Your task to perform on an android device: Open sound settings Image 0: 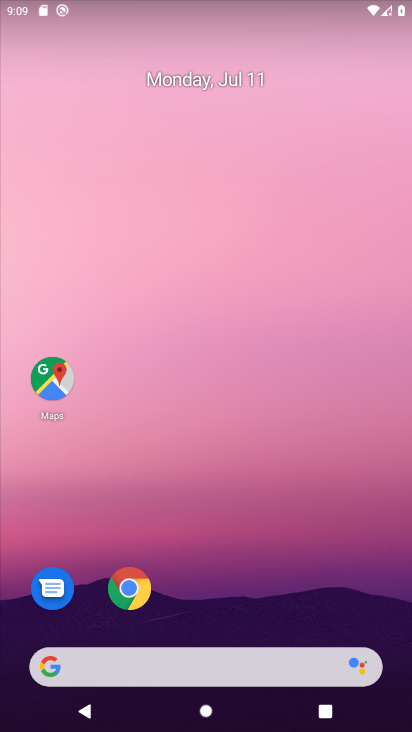
Step 0: drag from (238, 630) to (232, 282)
Your task to perform on an android device: Open sound settings Image 1: 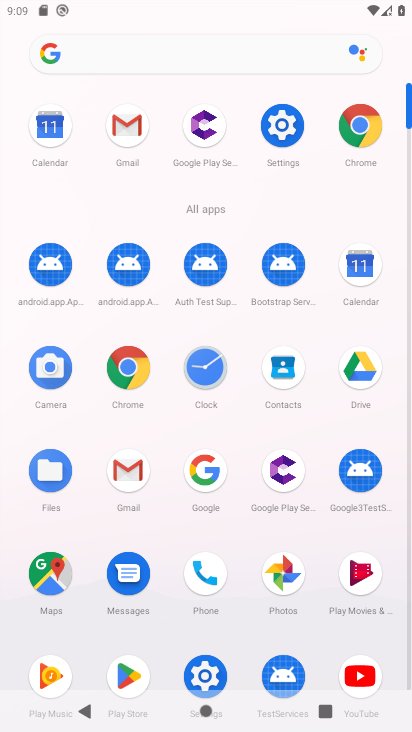
Step 1: click (293, 126)
Your task to perform on an android device: Open sound settings Image 2: 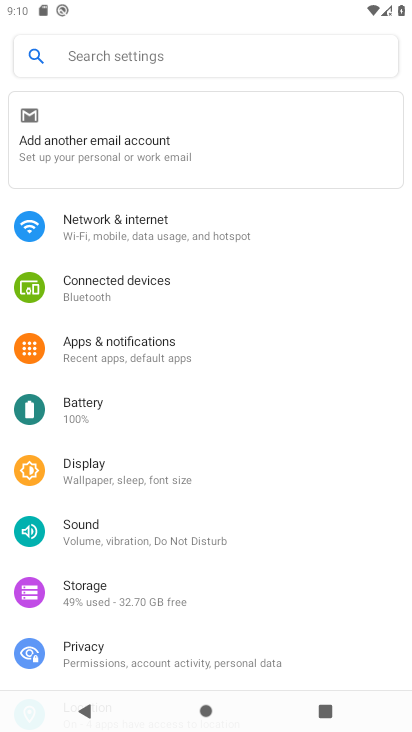
Step 2: click (91, 537)
Your task to perform on an android device: Open sound settings Image 3: 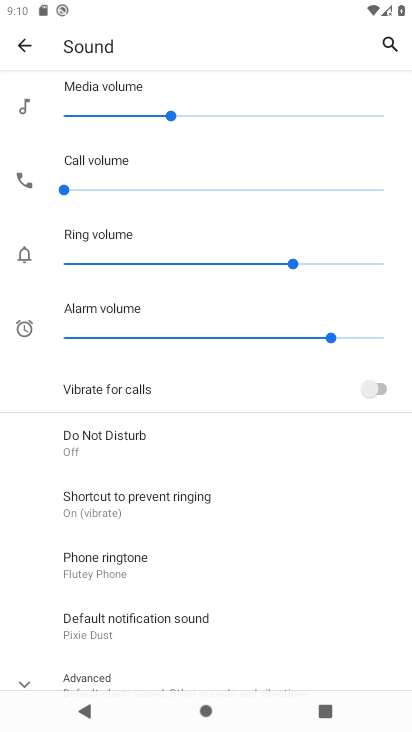
Step 3: task complete